Your task to perform on an android device: Open accessibility settings Image 0: 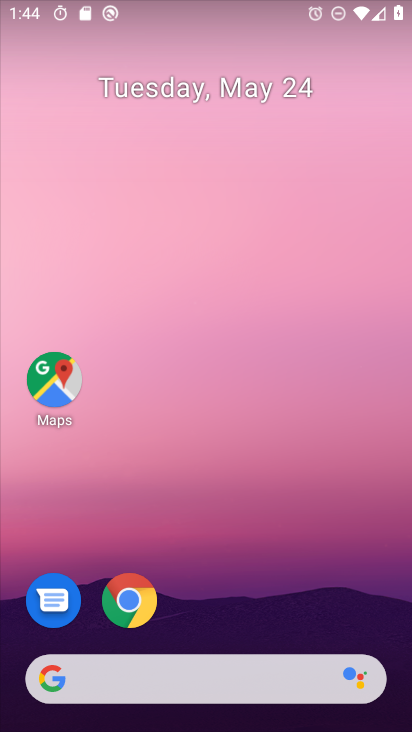
Step 0: drag from (261, 584) to (196, 163)
Your task to perform on an android device: Open accessibility settings Image 1: 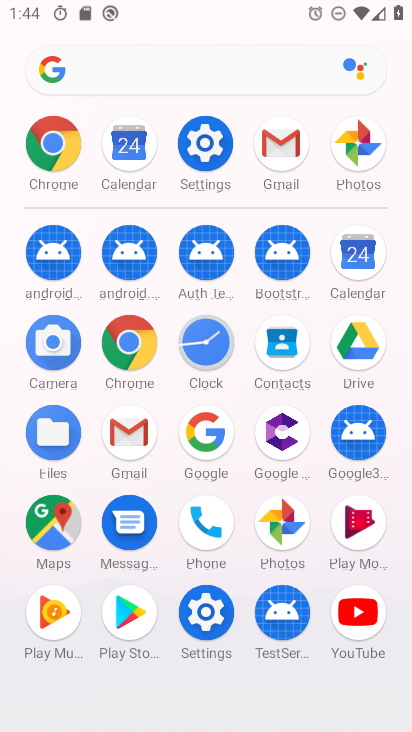
Step 1: click (185, 142)
Your task to perform on an android device: Open accessibility settings Image 2: 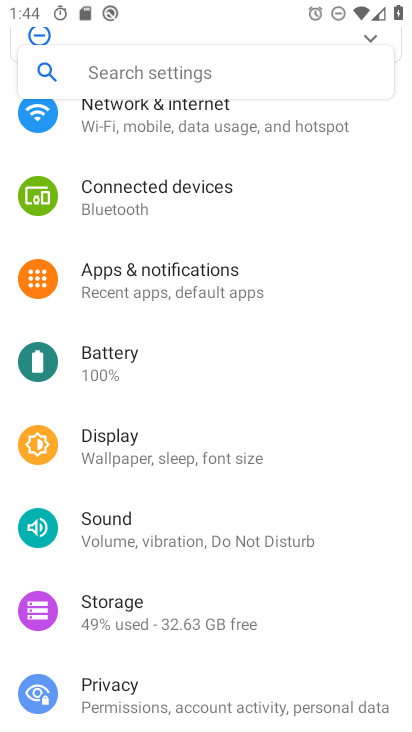
Step 2: drag from (257, 577) to (227, 153)
Your task to perform on an android device: Open accessibility settings Image 3: 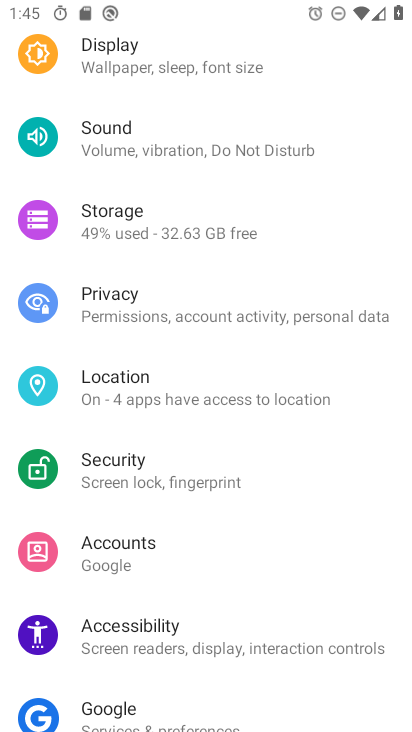
Step 3: drag from (257, 540) to (291, 150)
Your task to perform on an android device: Open accessibility settings Image 4: 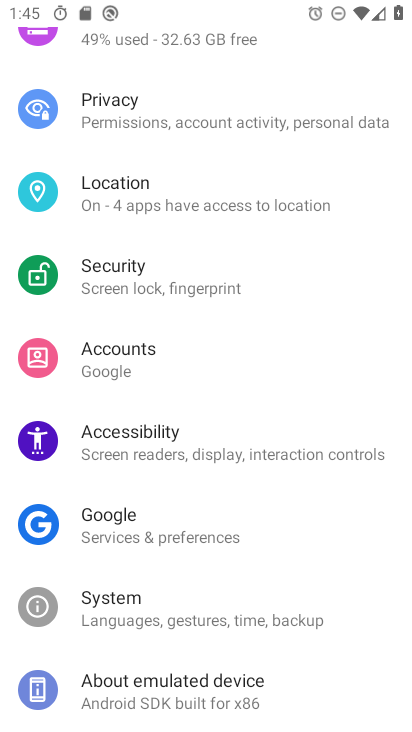
Step 4: click (163, 437)
Your task to perform on an android device: Open accessibility settings Image 5: 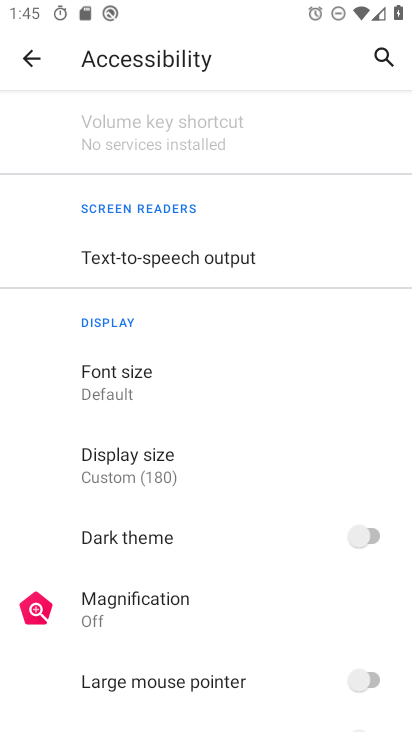
Step 5: task complete